Your task to perform on an android device: turn off notifications settings in the gmail app Image 0: 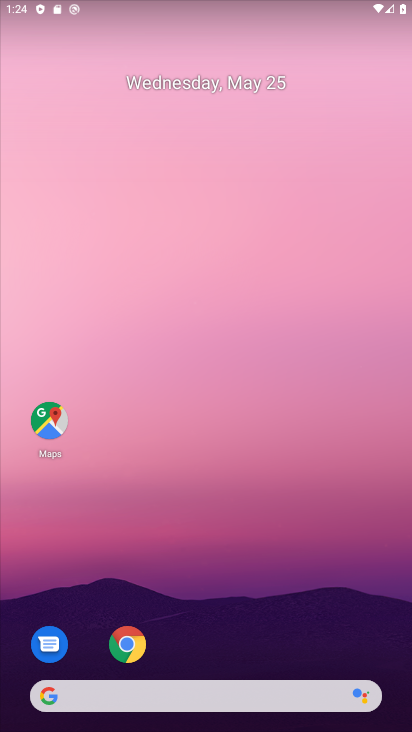
Step 0: drag from (183, 626) to (230, 142)
Your task to perform on an android device: turn off notifications settings in the gmail app Image 1: 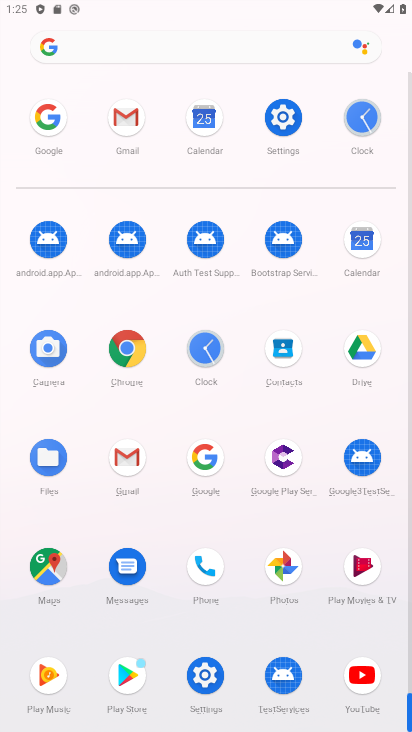
Step 1: click (130, 471)
Your task to perform on an android device: turn off notifications settings in the gmail app Image 2: 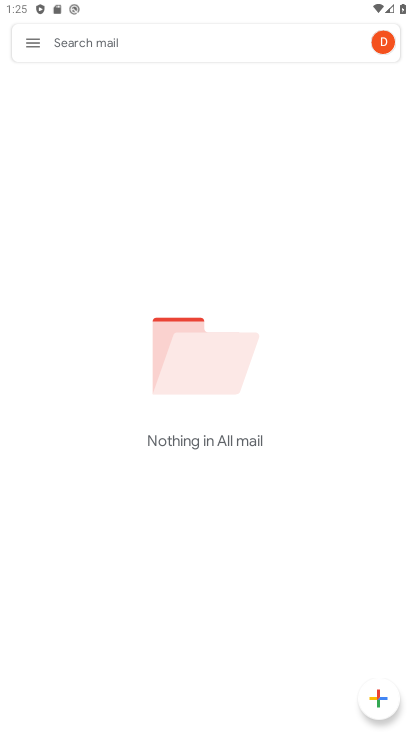
Step 2: click (34, 40)
Your task to perform on an android device: turn off notifications settings in the gmail app Image 3: 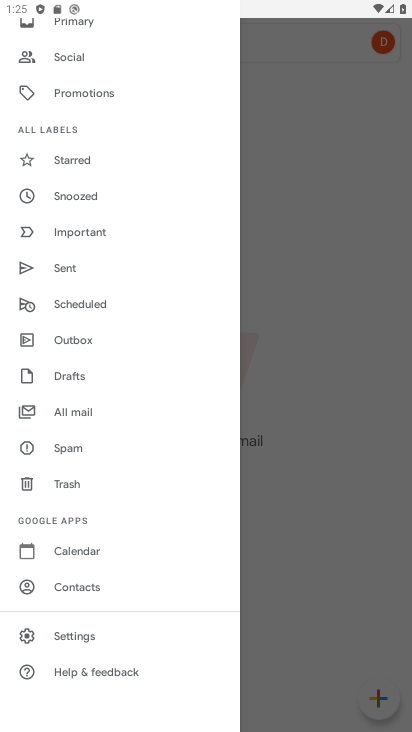
Step 3: click (65, 639)
Your task to perform on an android device: turn off notifications settings in the gmail app Image 4: 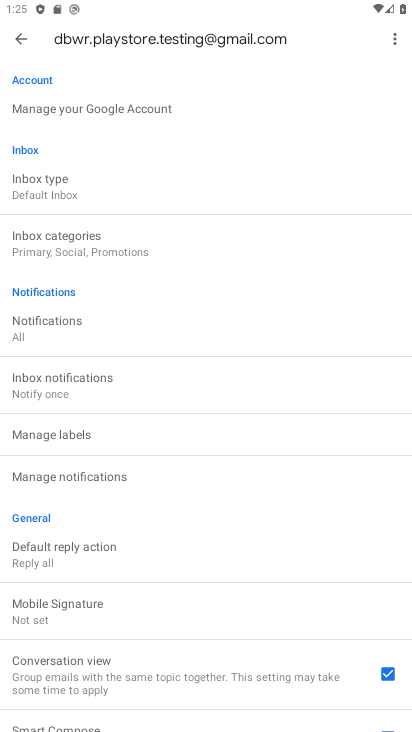
Step 4: click (41, 322)
Your task to perform on an android device: turn off notifications settings in the gmail app Image 5: 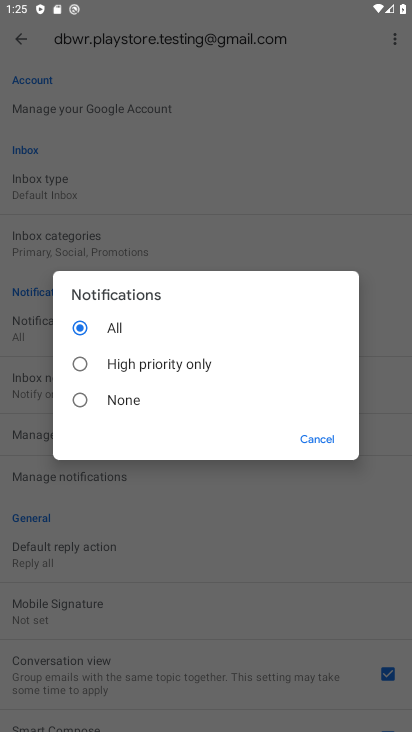
Step 5: click (80, 401)
Your task to perform on an android device: turn off notifications settings in the gmail app Image 6: 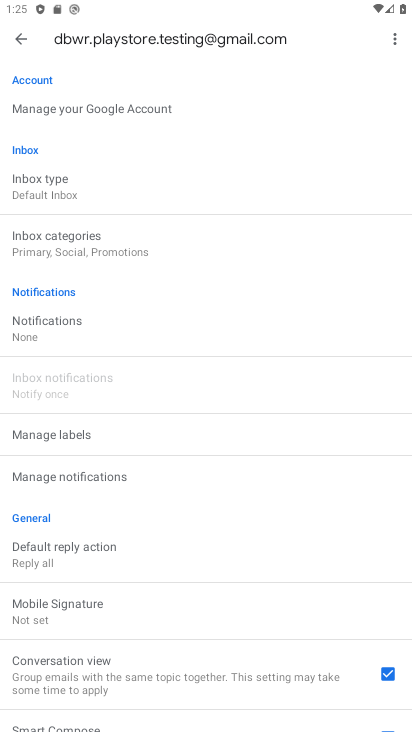
Step 6: task complete